Your task to perform on an android device: turn on sleep mode Image 0: 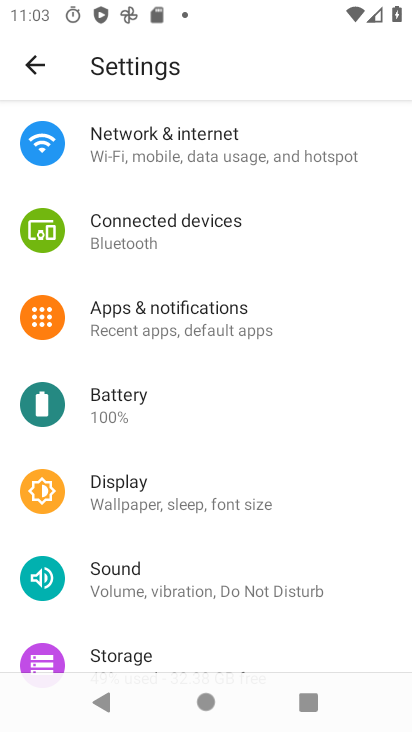
Step 0: click (216, 488)
Your task to perform on an android device: turn on sleep mode Image 1: 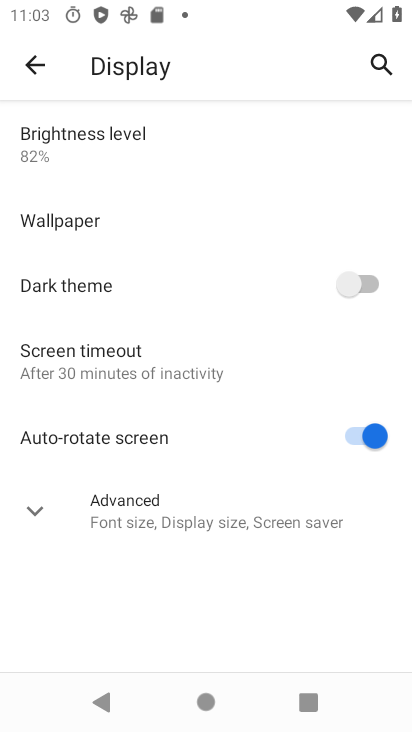
Step 1: task complete